Your task to perform on an android device: Search for sushi restaurants on Maps Image 0: 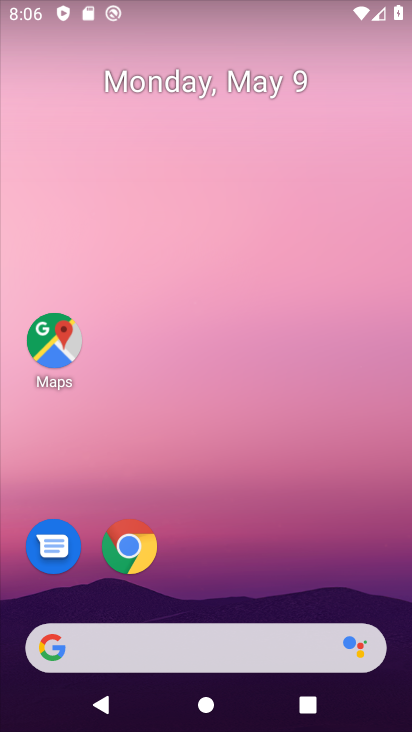
Step 0: click (65, 343)
Your task to perform on an android device: Search for sushi restaurants on Maps Image 1: 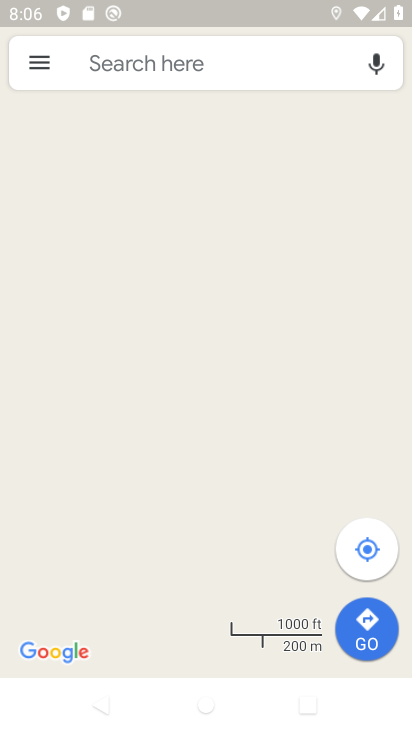
Step 1: click (149, 69)
Your task to perform on an android device: Search for sushi restaurants on Maps Image 2: 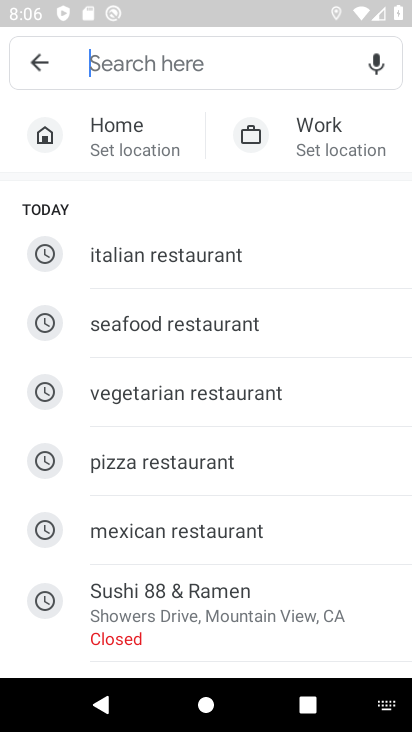
Step 2: type "sushi restaurant"
Your task to perform on an android device: Search for sushi restaurants on Maps Image 3: 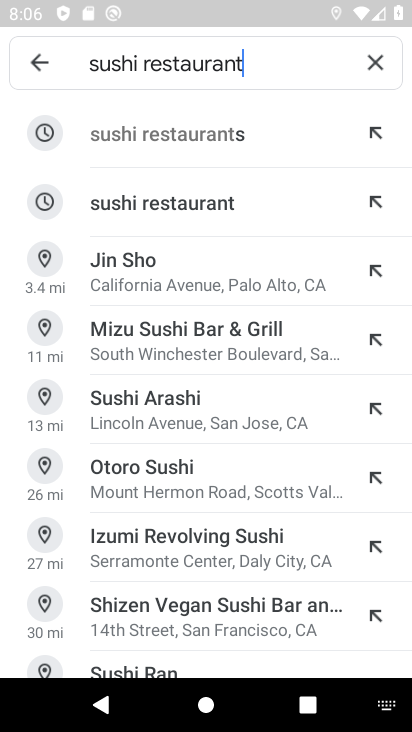
Step 3: click (235, 127)
Your task to perform on an android device: Search for sushi restaurants on Maps Image 4: 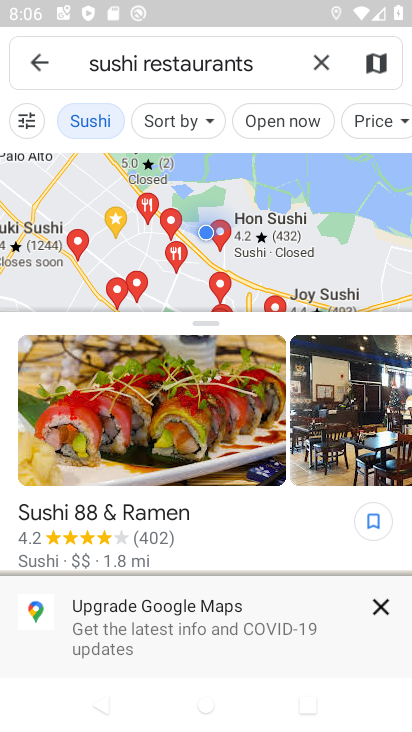
Step 4: task complete